Your task to perform on an android device: Go to eBay Image 0: 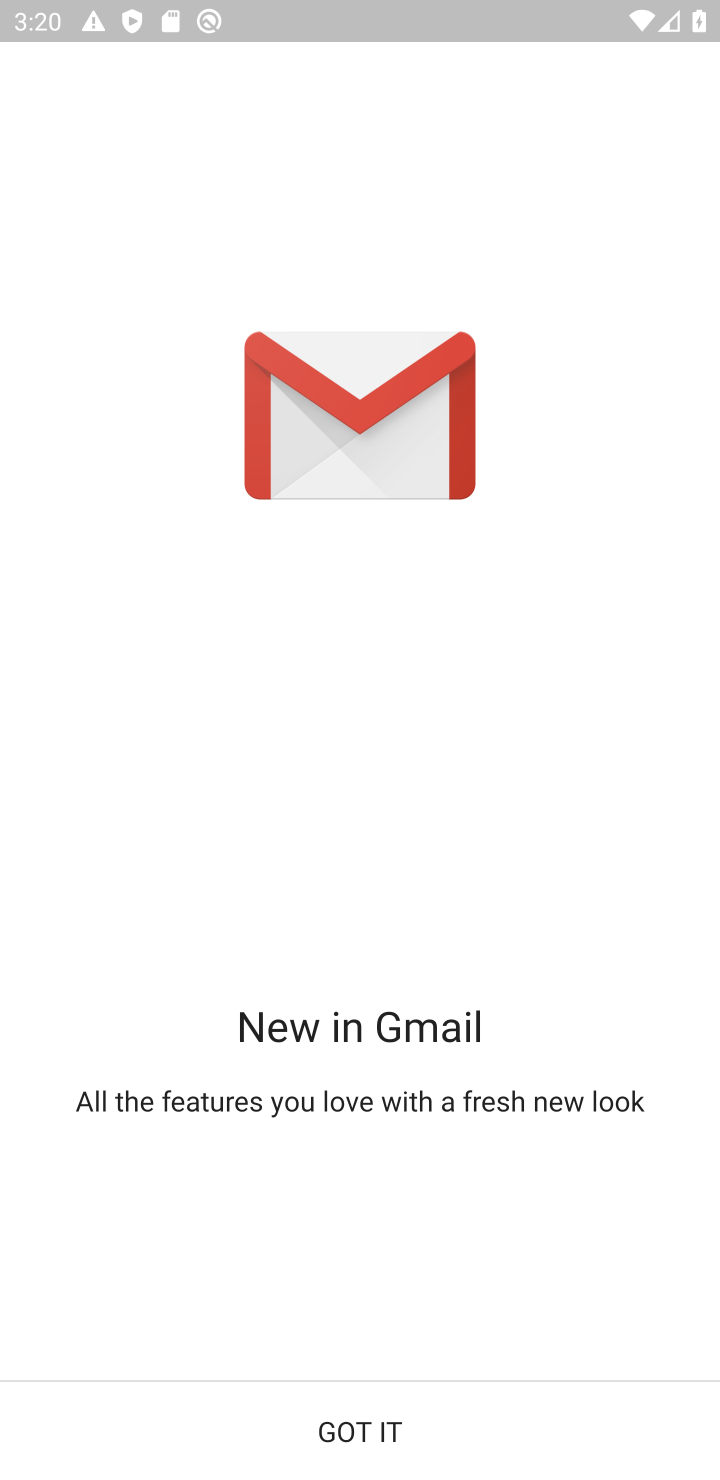
Step 0: press home button
Your task to perform on an android device: Go to eBay Image 1: 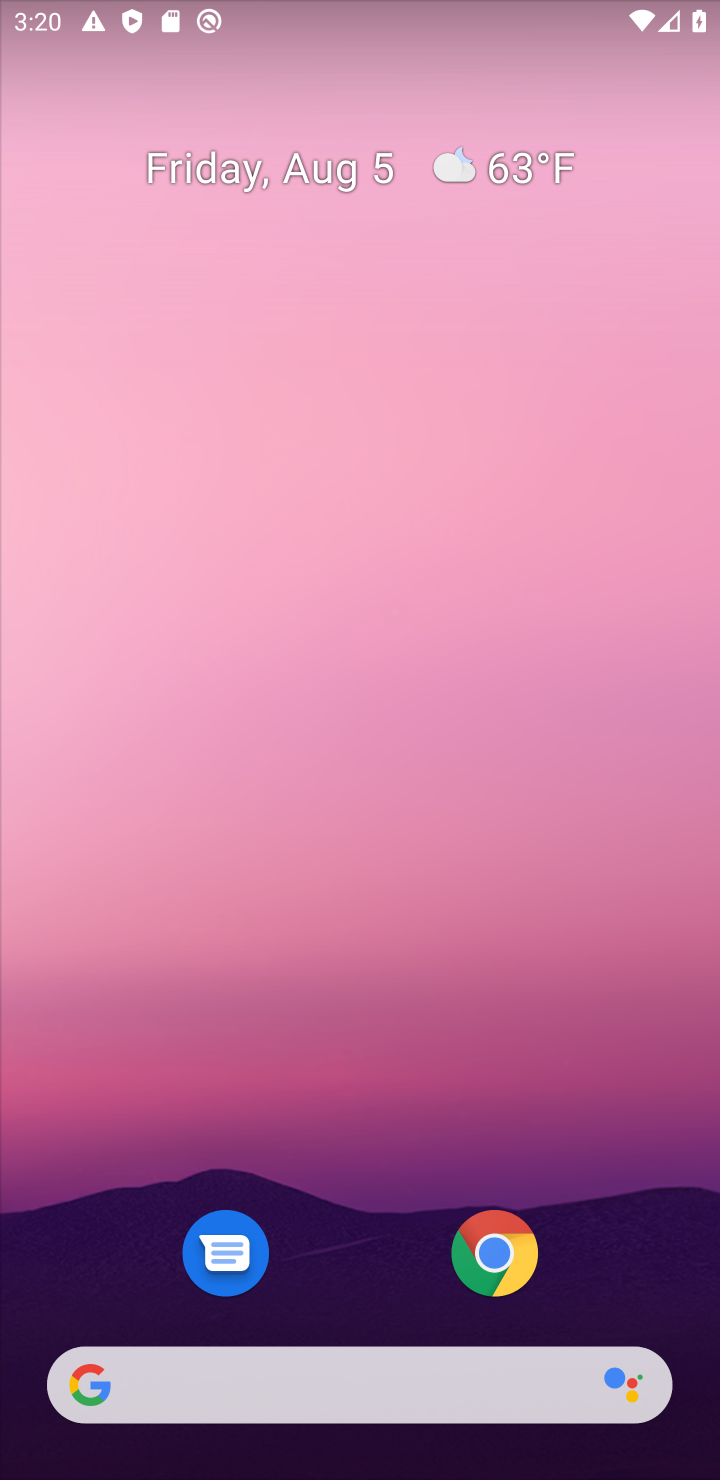
Step 1: drag from (368, 1001) to (400, 128)
Your task to perform on an android device: Go to eBay Image 2: 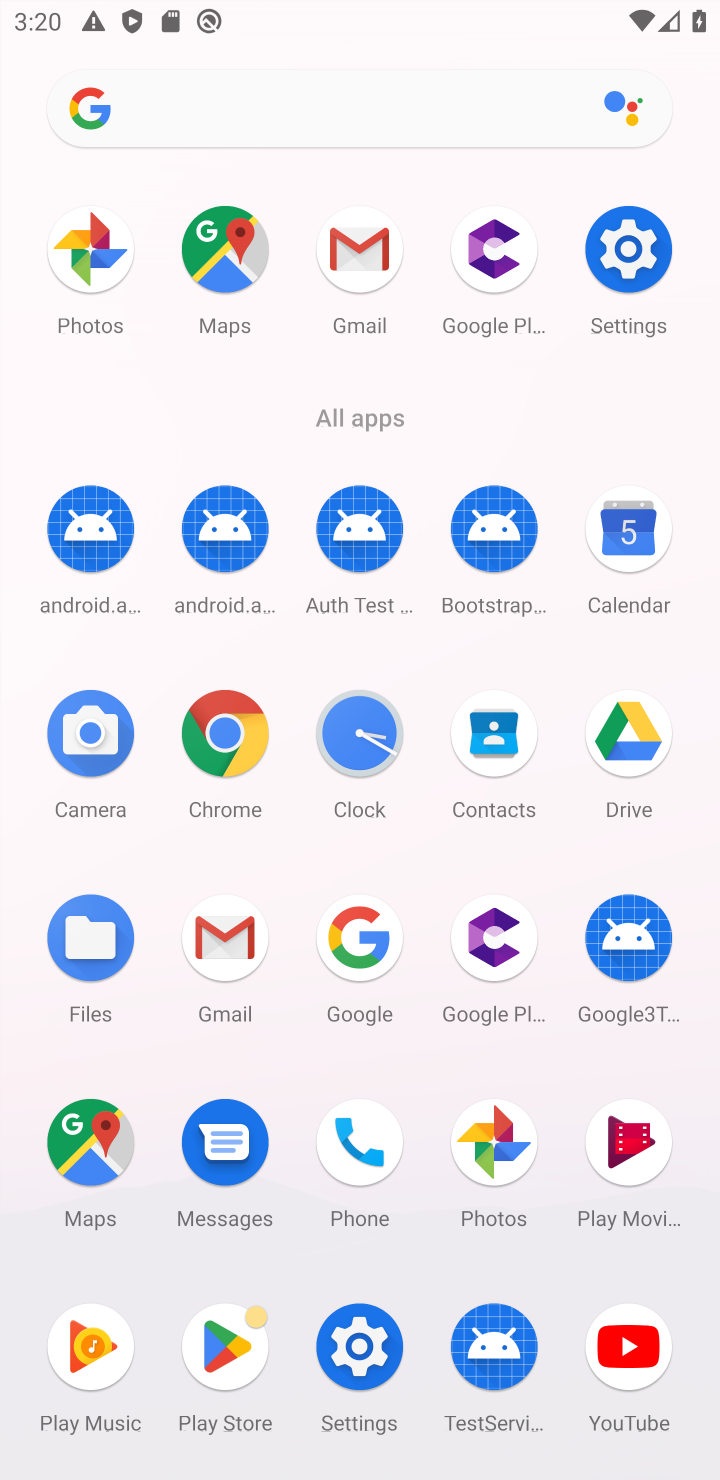
Step 2: click (219, 732)
Your task to perform on an android device: Go to eBay Image 3: 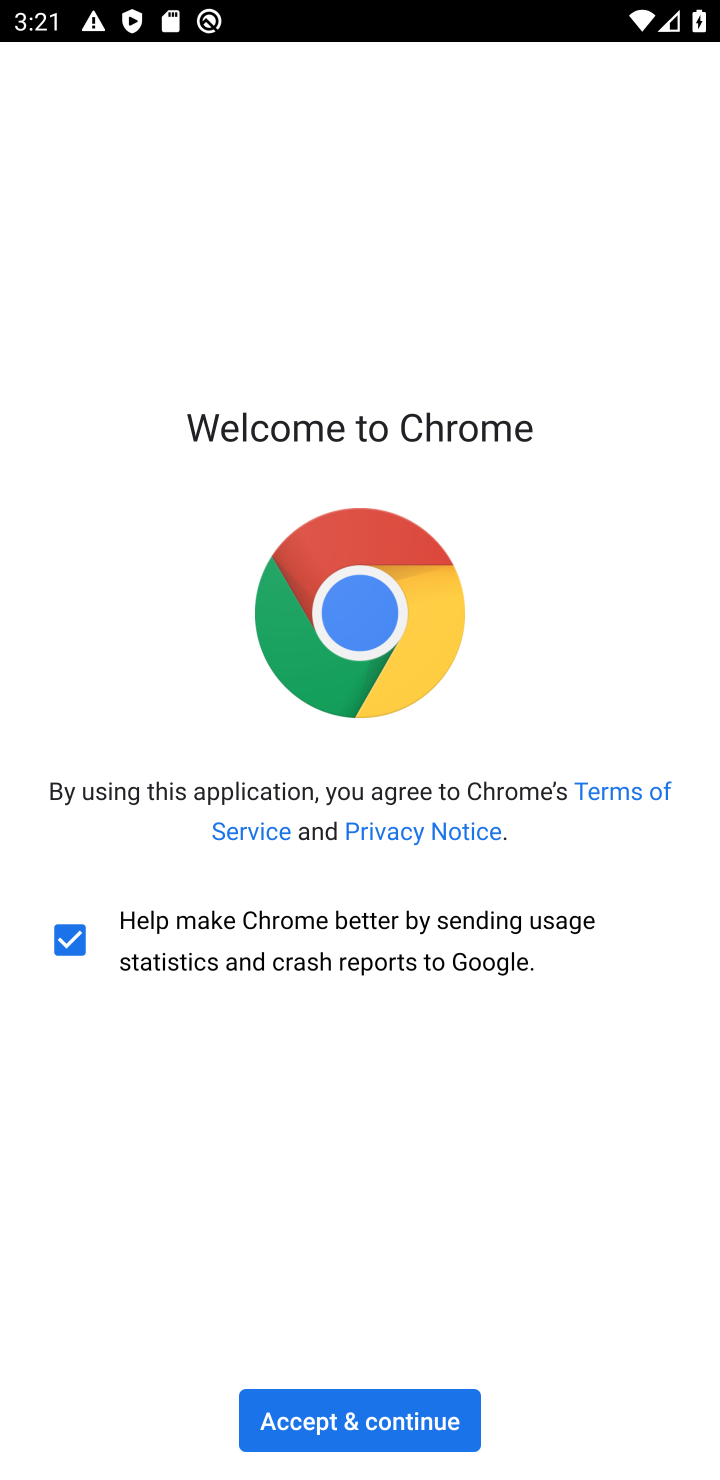
Step 3: click (354, 1416)
Your task to perform on an android device: Go to eBay Image 4: 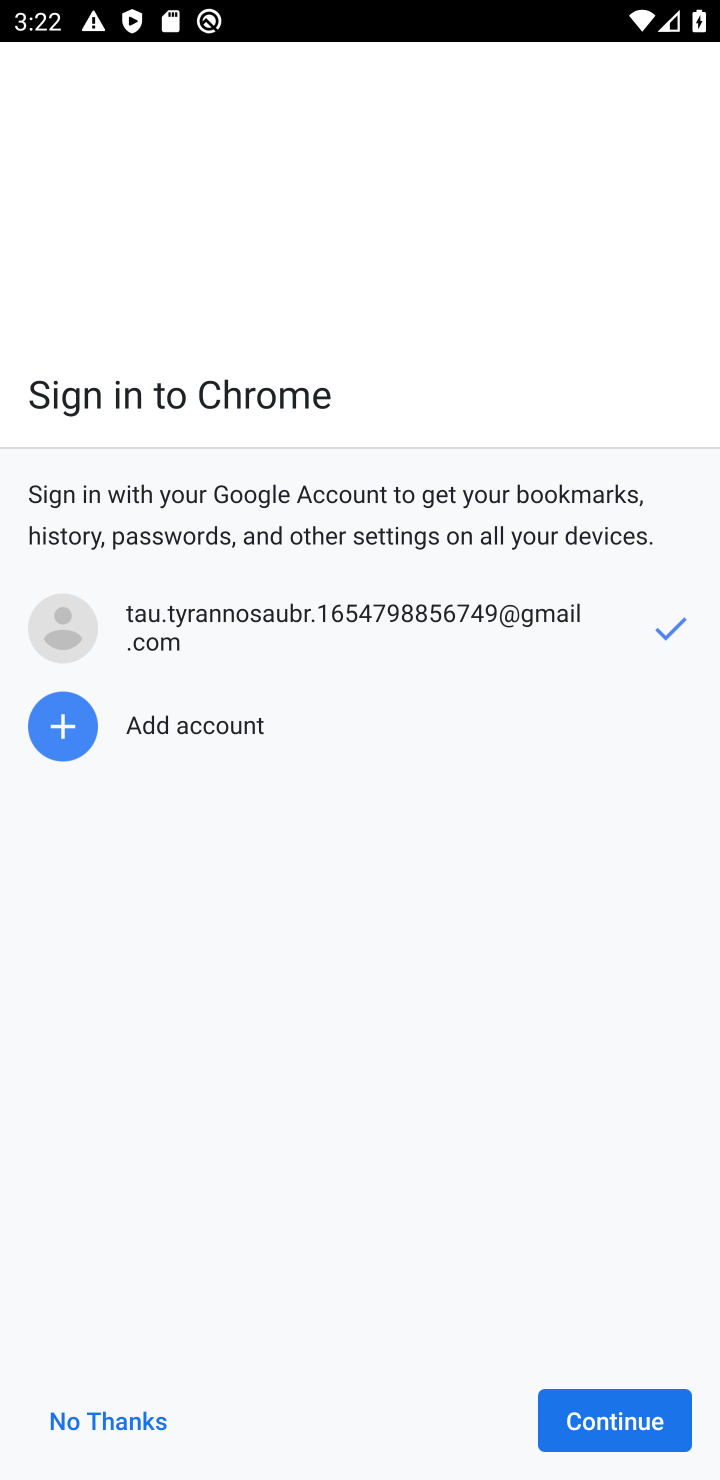
Step 4: click (600, 1424)
Your task to perform on an android device: Go to eBay Image 5: 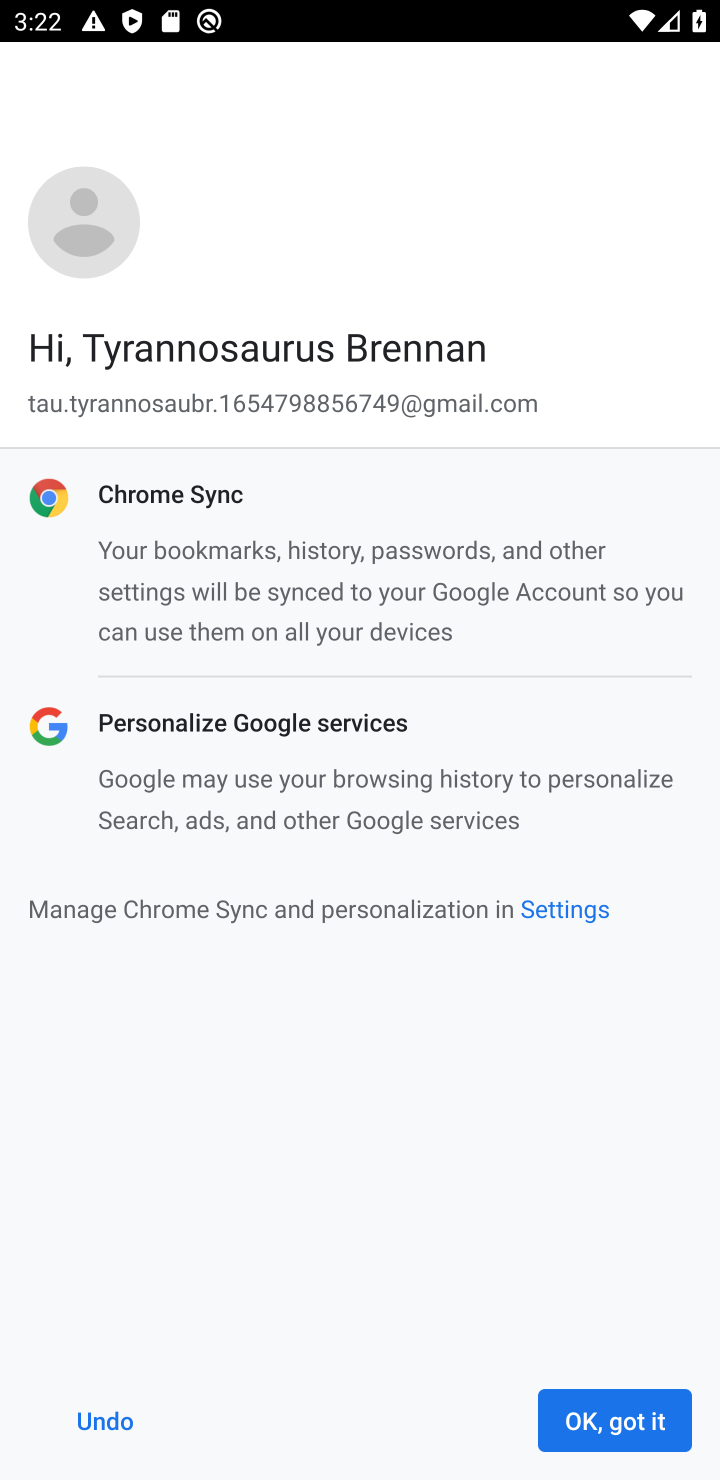
Step 5: click (617, 1420)
Your task to perform on an android device: Go to eBay Image 6: 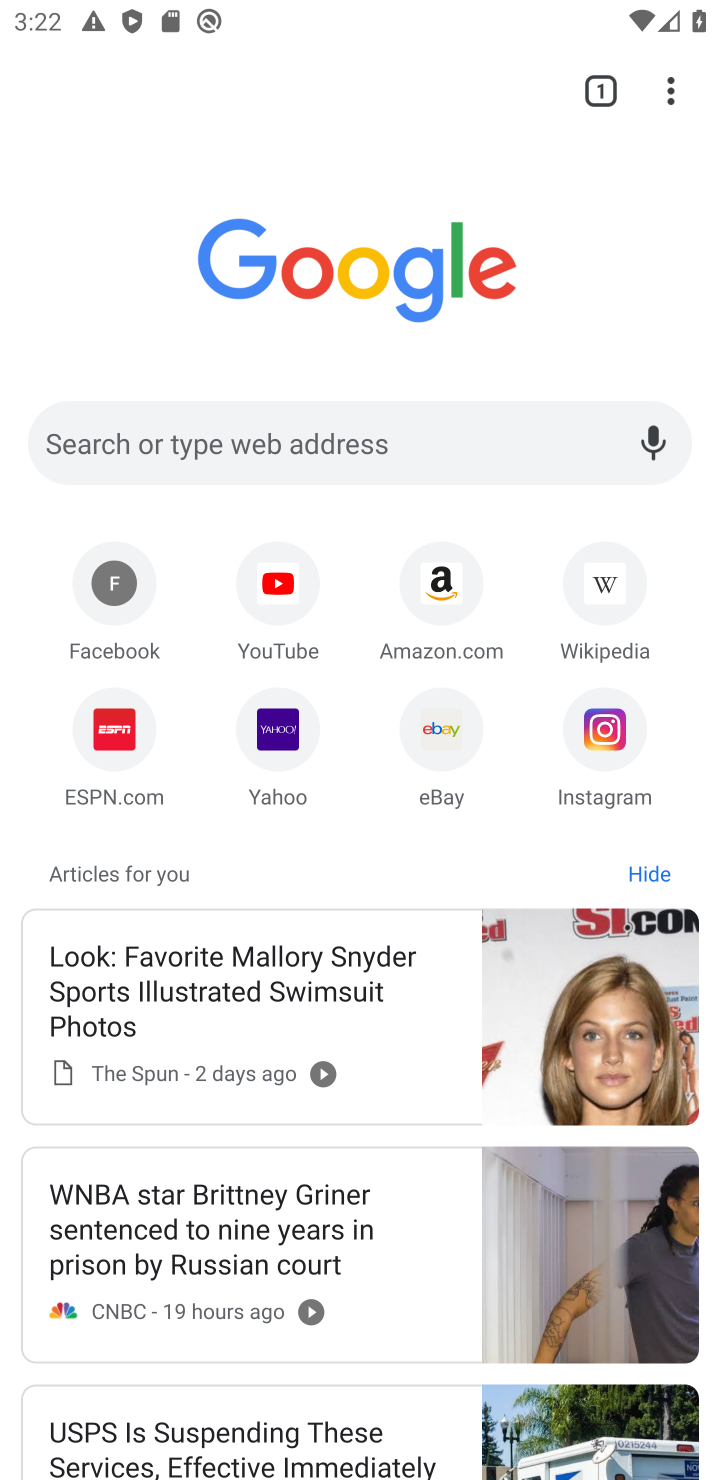
Step 6: click (441, 724)
Your task to perform on an android device: Go to eBay Image 7: 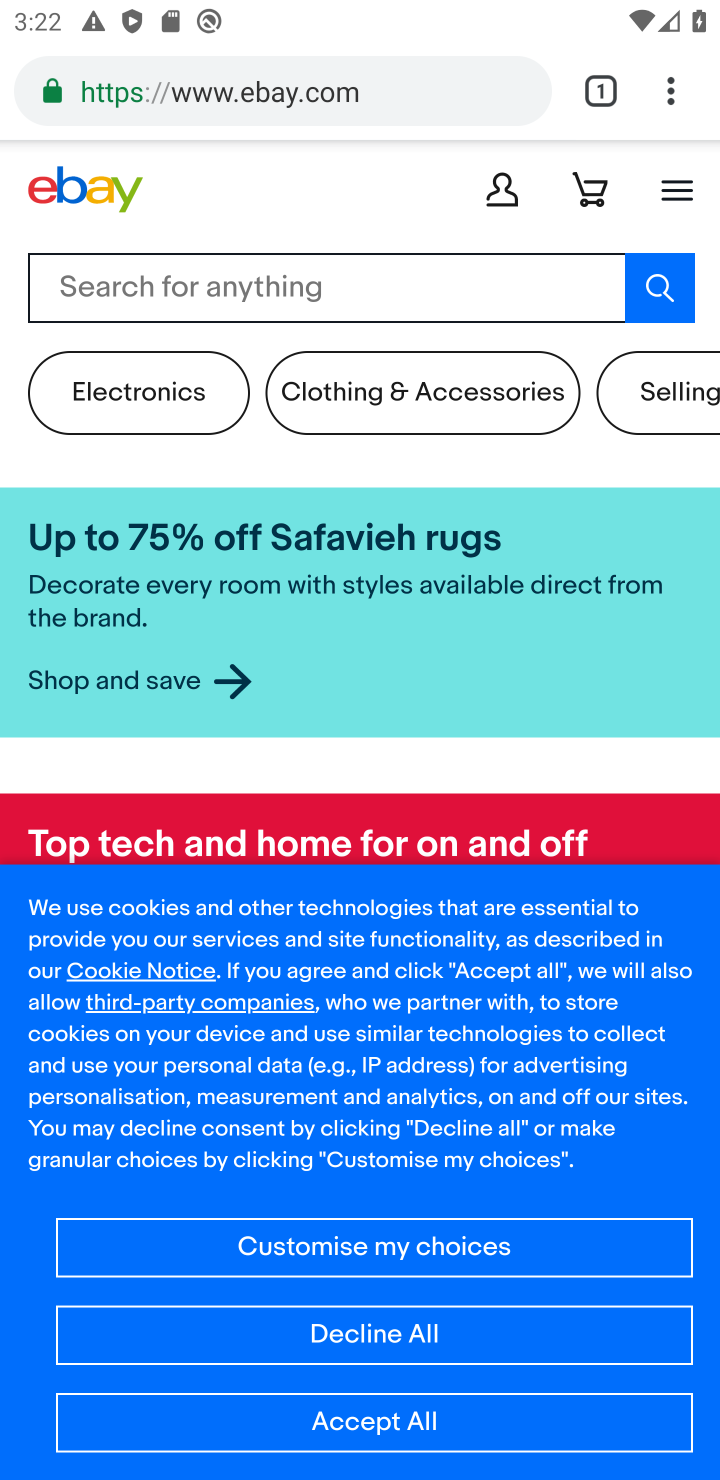
Step 7: click (392, 1421)
Your task to perform on an android device: Go to eBay Image 8: 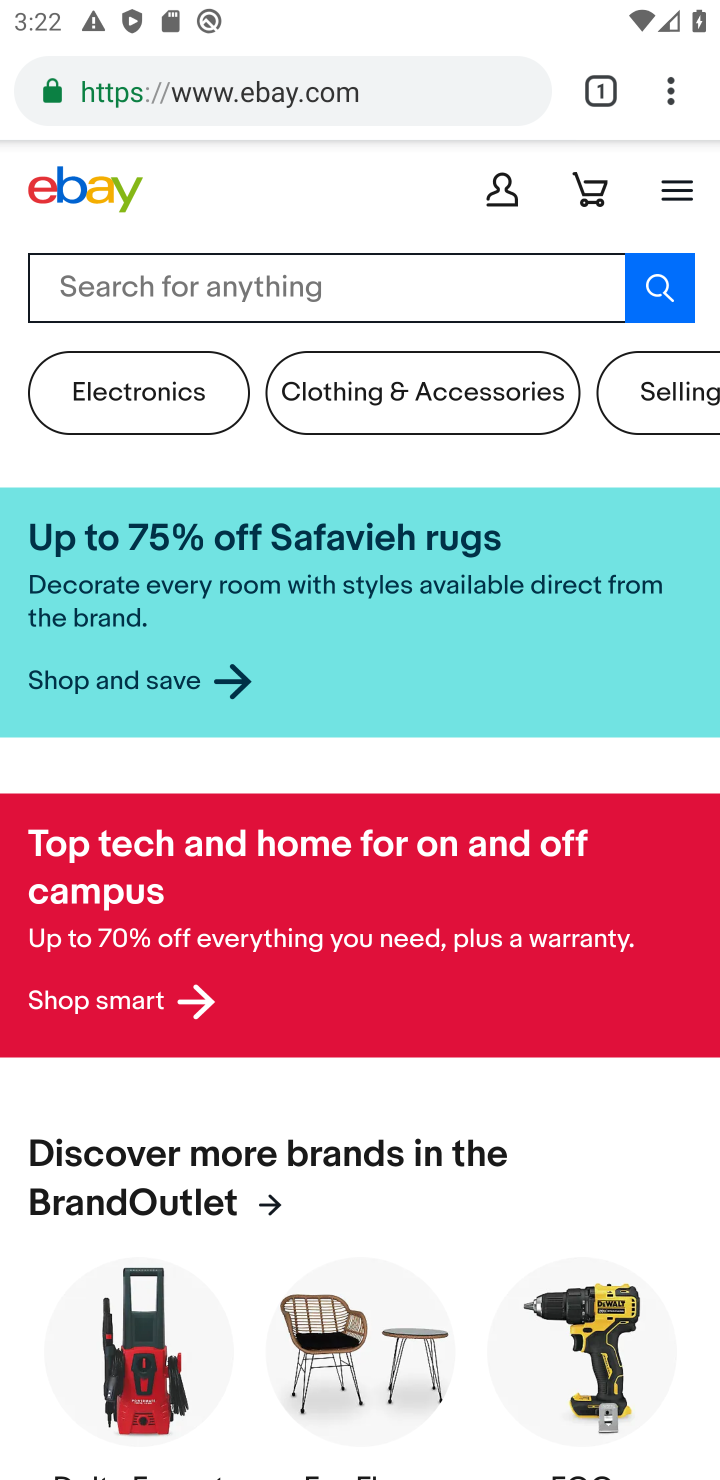
Step 8: task complete